Your task to perform on an android device: Go to settings Image 0: 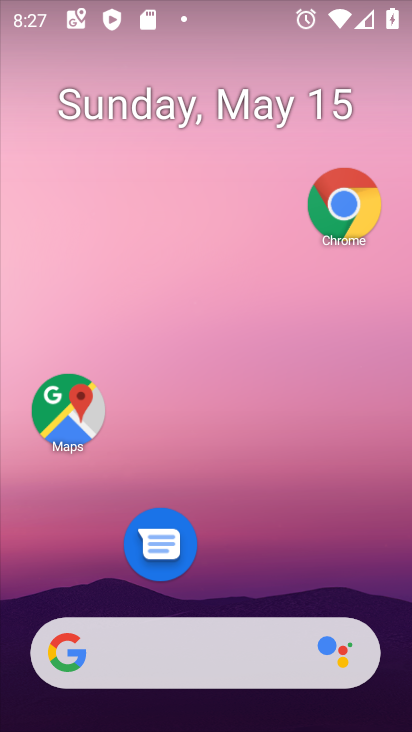
Step 0: drag from (263, 566) to (231, 60)
Your task to perform on an android device: Go to settings Image 1: 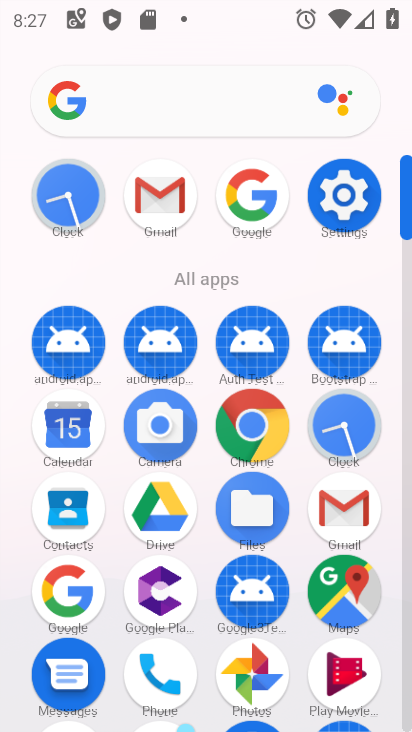
Step 1: click (355, 197)
Your task to perform on an android device: Go to settings Image 2: 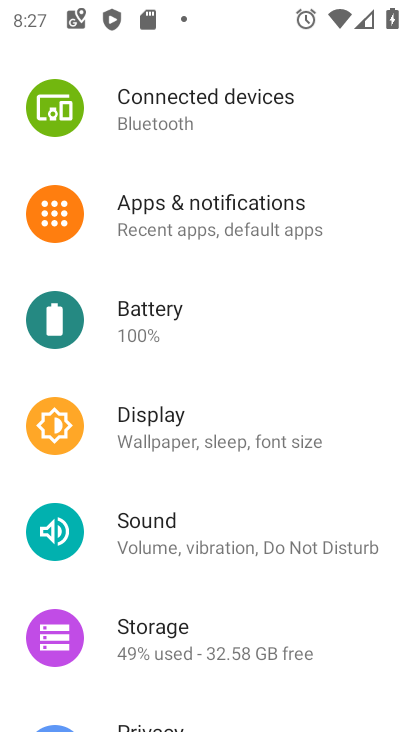
Step 2: task complete